Your task to perform on an android device: Go to Android settings Image 0: 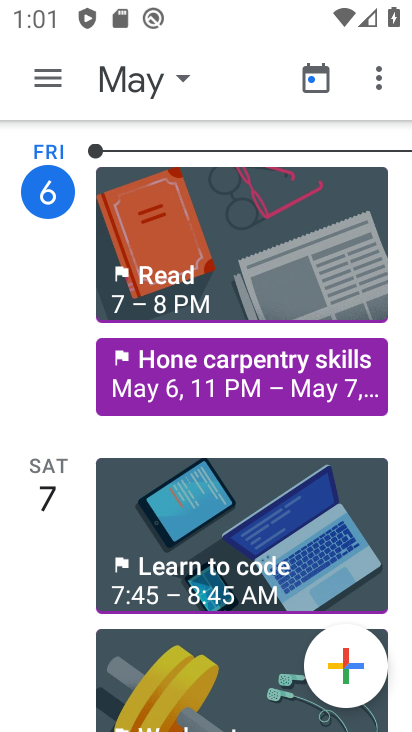
Step 0: press home button
Your task to perform on an android device: Go to Android settings Image 1: 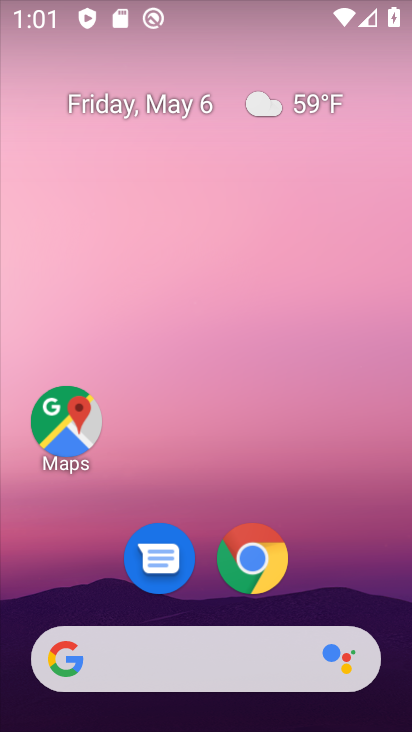
Step 1: drag from (203, 730) to (197, 324)
Your task to perform on an android device: Go to Android settings Image 2: 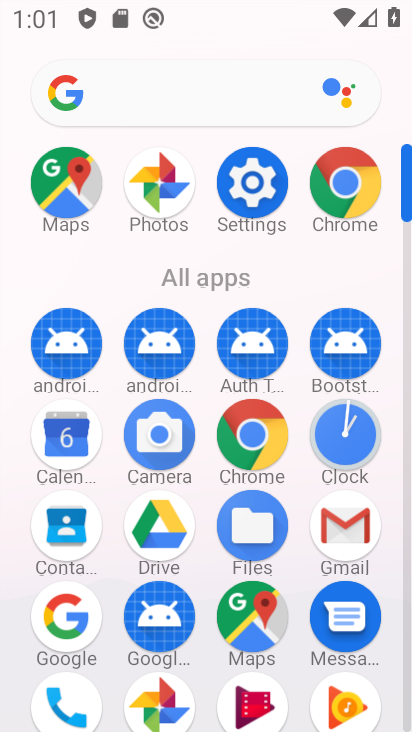
Step 2: click (255, 183)
Your task to perform on an android device: Go to Android settings Image 3: 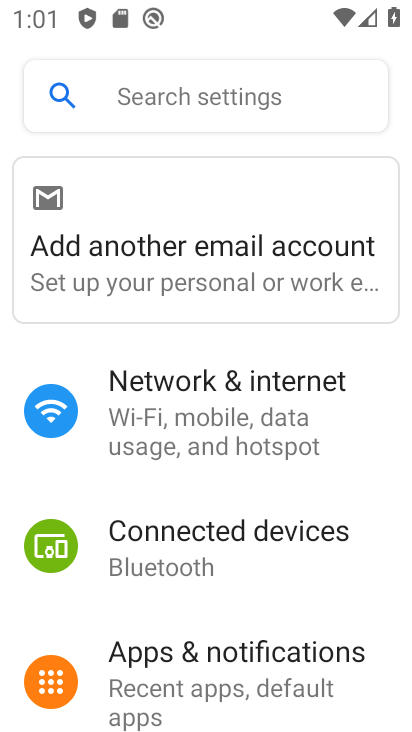
Step 3: task complete